Your task to perform on an android device: Open the stopwatch Image 0: 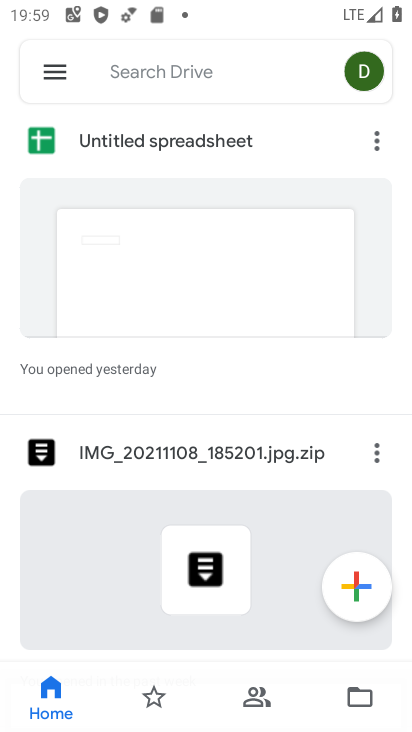
Step 0: press home button
Your task to perform on an android device: Open the stopwatch Image 1: 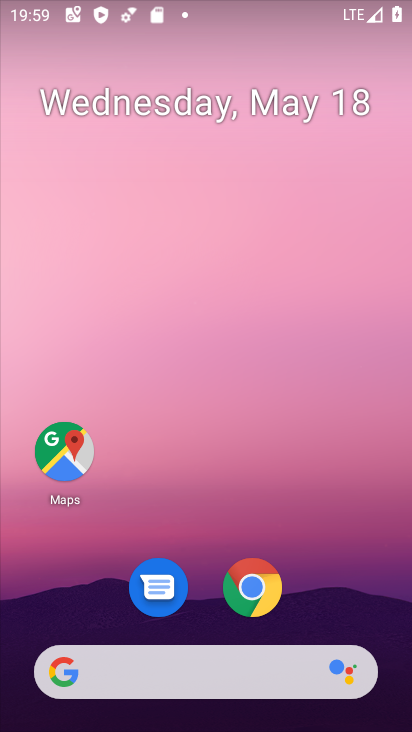
Step 1: drag from (191, 632) to (234, 72)
Your task to perform on an android device: Open the stopwatch Image 2: 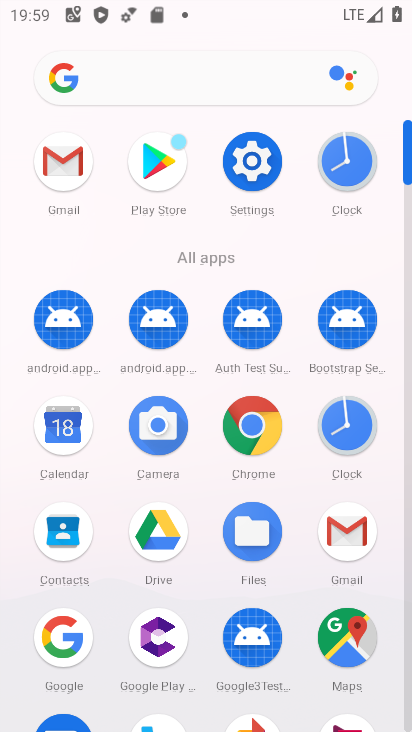
Step 2: click (333, 163)
Your task to perform on an android device: Open the stopwatch Image 3: 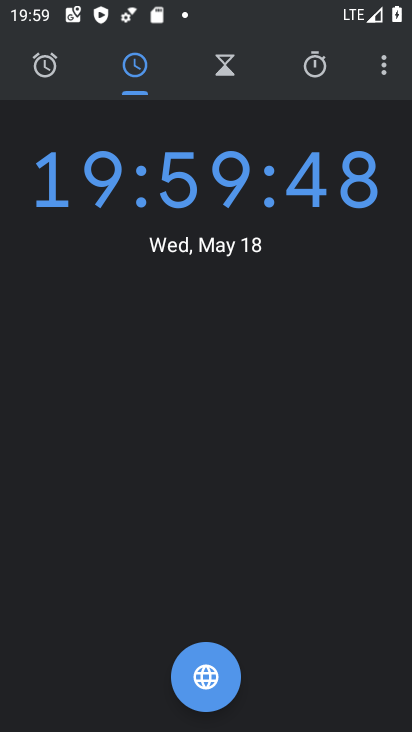
Step 3: click (325, 69)
Your task to perform on an android device: Open the stopwatch Image 4: 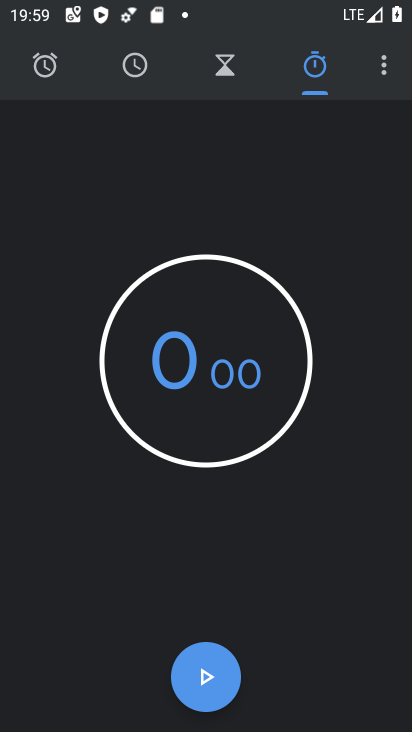
Step 4: click (199, 695)
Your task to perform on an android device: Open the stopwatch Image 5: 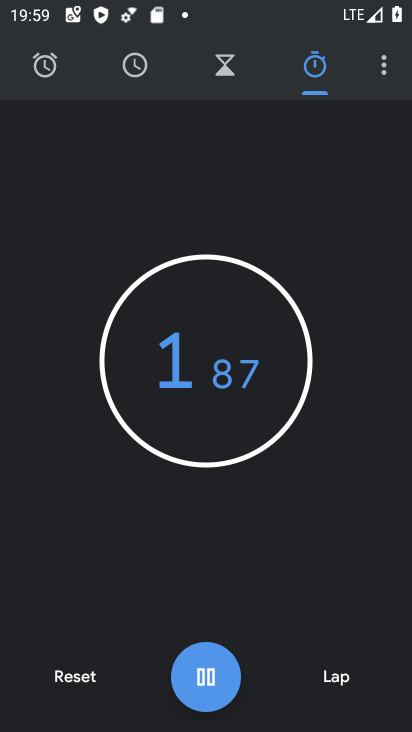
Step 5: task complete